Your task to perform on an android device: Go to eBay Image 0: 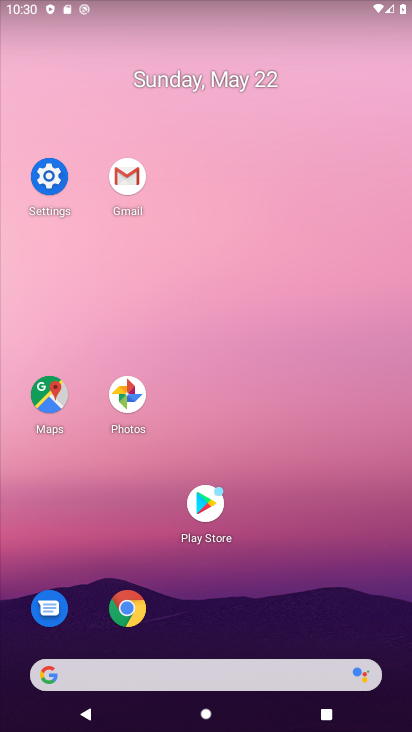
Step 0: click (125, 612)
Your task to perform on an android device: Go to eBay Image 1: 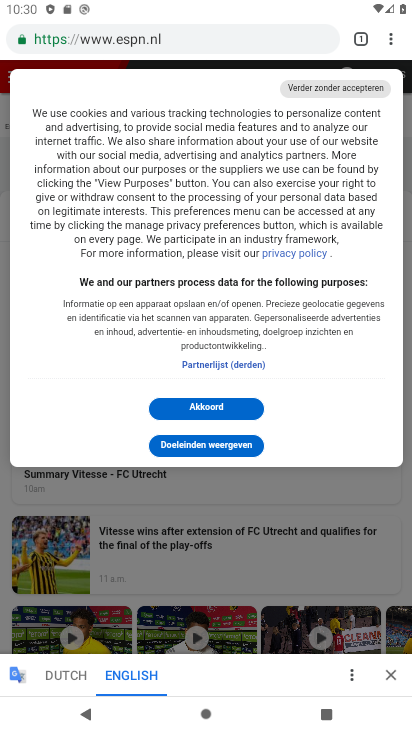
Step 1: click (356, 41)
Your task to perform on an android device: Go to eBay Image 2: 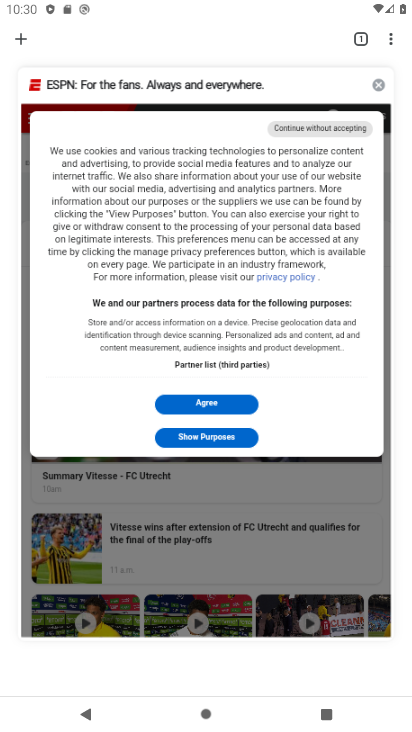
Step 2: click (15, 52)
Your task to perform on an android device: Go to eBay Image 3: 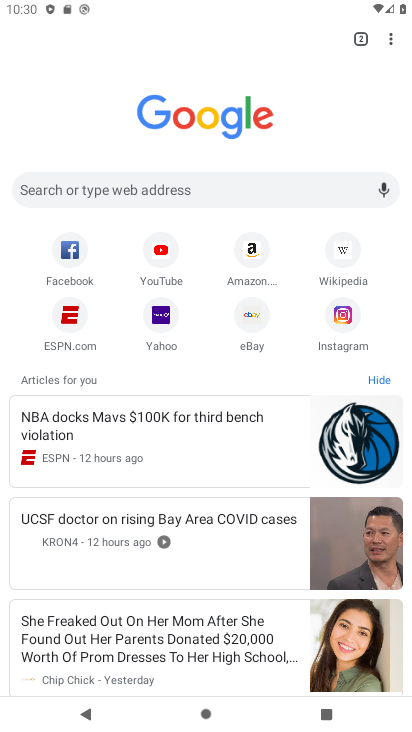
Step 3: click (264, 315)
Your task to perform on an android device: Go to eBay Image 4: 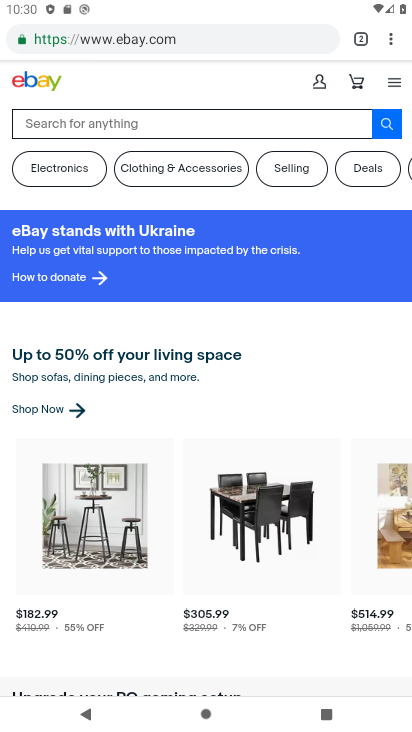
Step 4: task complete